Your task to perform on an android device: Go to sound settings Image 0: 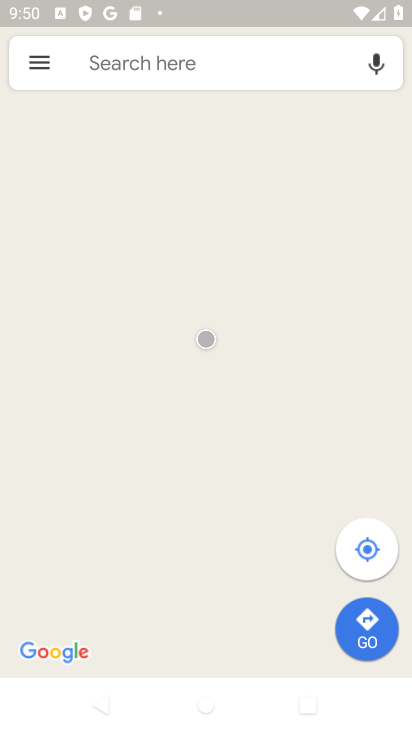
Step 0: press home button
Your task to perform on an android device: Go to sound settings Image 1: 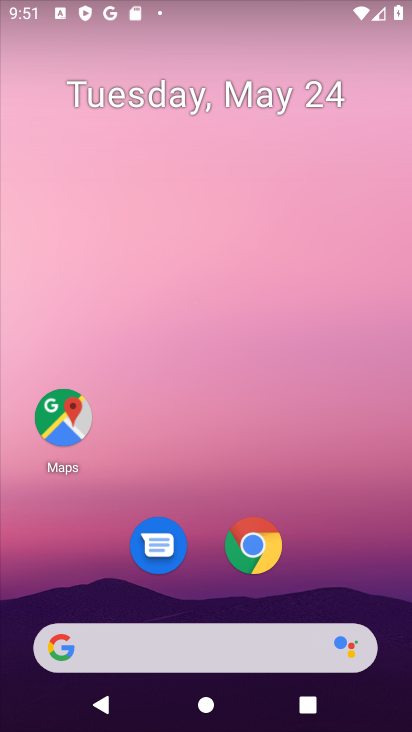
Step 1: drag from (287, 358) to (318, 54)
Your task to perform on an android device: Go to sound settings Image 2: 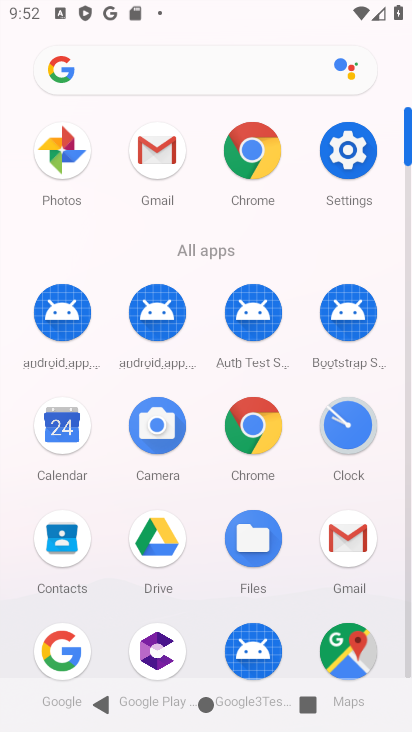
Step 2: click (356, 151)
Your task to perform on an android device: Go to sound settings Image 3: 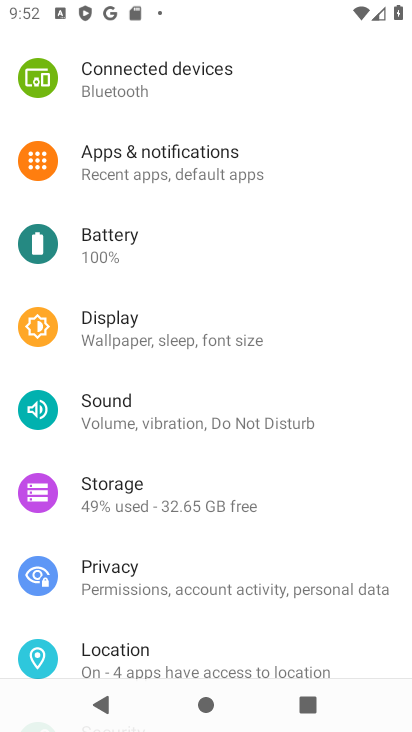
Step 3: click (138, 412)
Your task to perform on an android device: Go to sound settings Image 4: 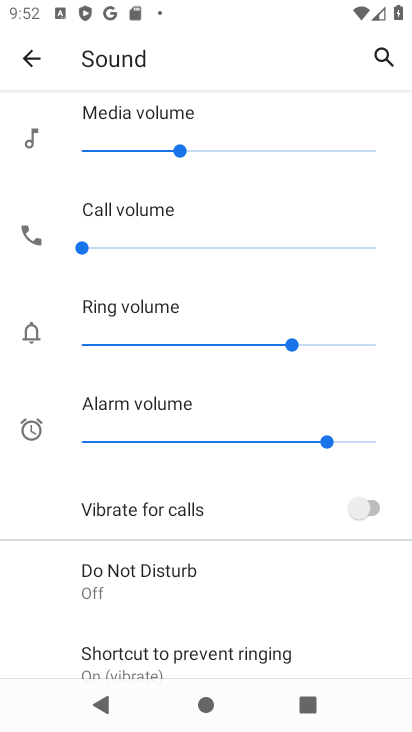
Step 4: task complete